Your task to perform on an android device: see sites visited before in the chrome app Image 0: 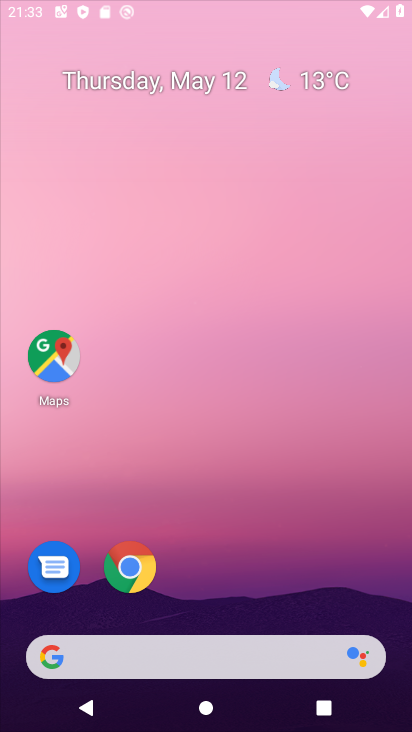
Step 0: press home button
Your task to perform on an android device: see sites visited before in the chrome app Image 1: 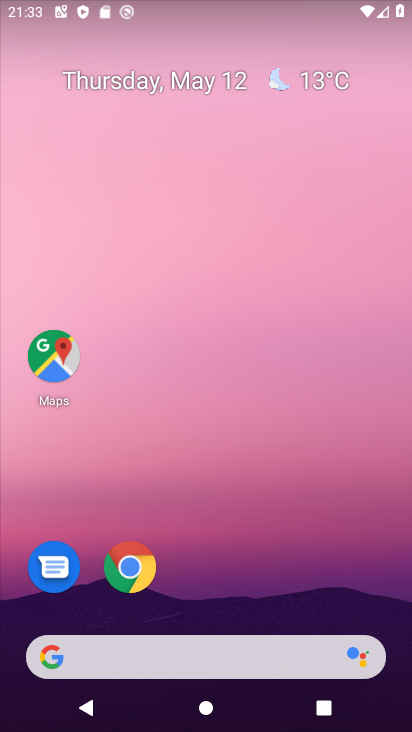
Step 1: click (129, 559)
Your task to perform on an android device: see sites visited before in the chrome app Image 2: 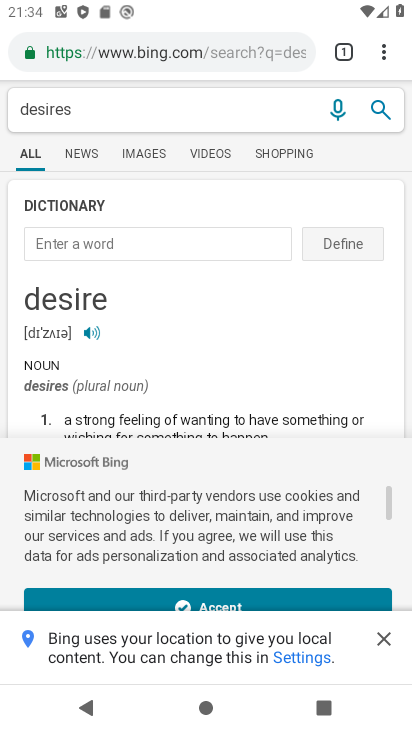
Step 2: press home button
Your task to perform on an android device: see sites visited before in the chrome app Image 3: 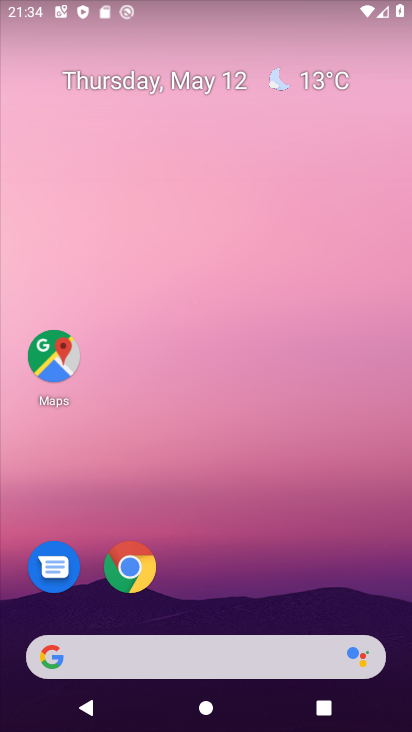
Step 3: click (127, 569)
Your task to perform on an android device: see sites visited before in the chrome app Image 4: 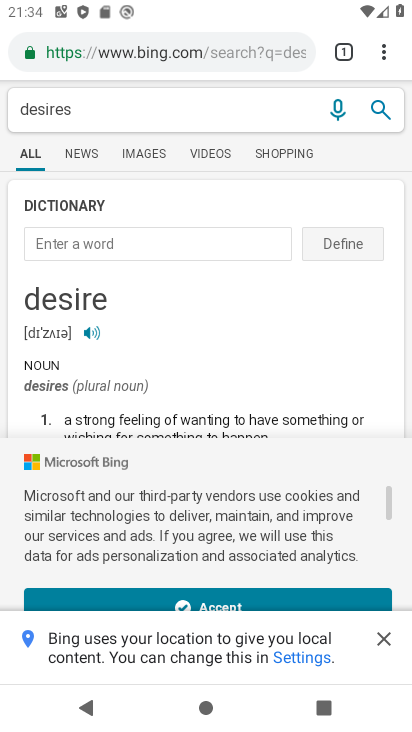
Step 4: click (385, 48)
Your task to perform on an android device: see sites visited before in the chrome app Image 5: 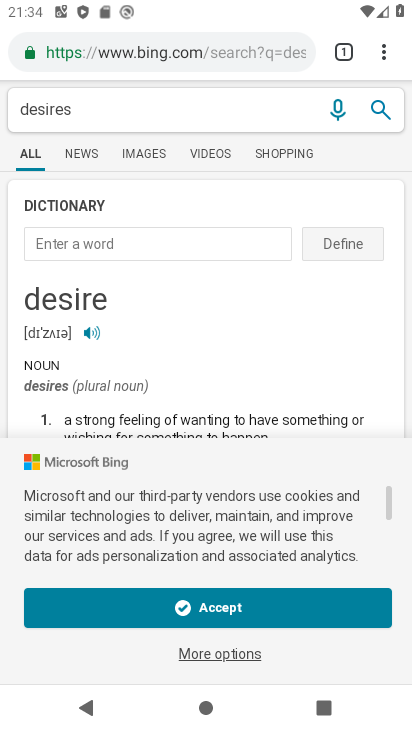
Step 5: click (381, 61)
Your task to perform on an android device: see sites visited before in the chrome app Image 6: 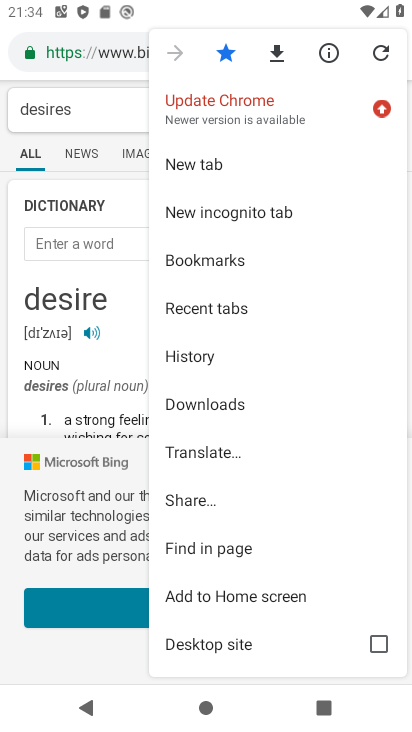
Step 6: click (217, 353)
Your task to perform on an android device: see sites visited before in the chrome app Image 7: 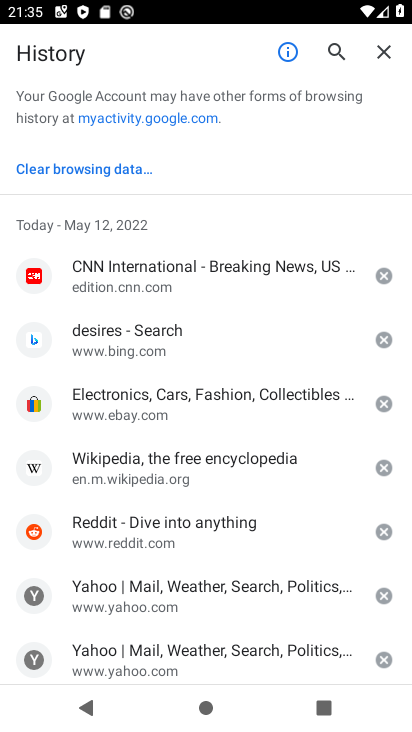
Step 7: task complete